Your task to perform on an android device: Search for macbook pro 15 inch on ebay, select the first entry, and add it to the cart. Image 0: 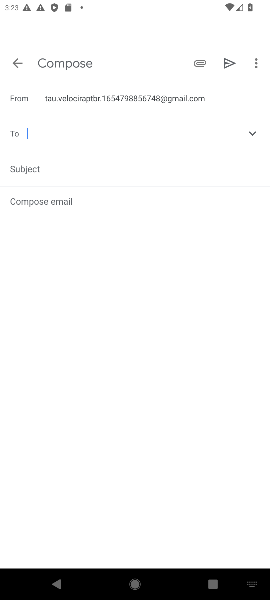
Step 0: press home button
Your task to perform on an android device: Search for macbook pro 15 inch on ebay, select the first entry, and add it to the cart. Image 1: 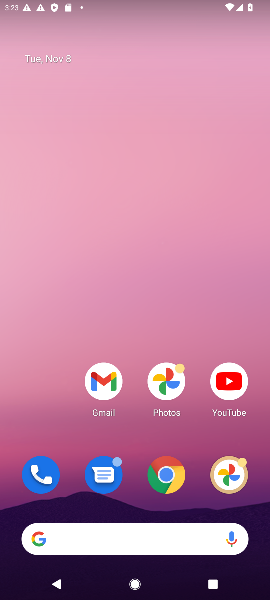
Step 1: drag from (99, 519) to (108, 165)
Your task to perform on an android device: Search for macbook pro 15 inch on ebay, select the first entry, and add it to the cart. Image 2: 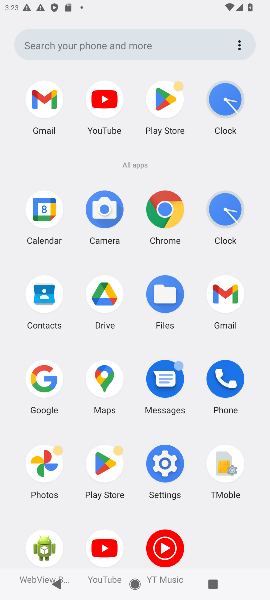
Step 2: click (41, 385)
Your task to perform on an android device: Search for macbook pro 15 inch on ebay, select the first entry, and add it to the cart. Image 3: 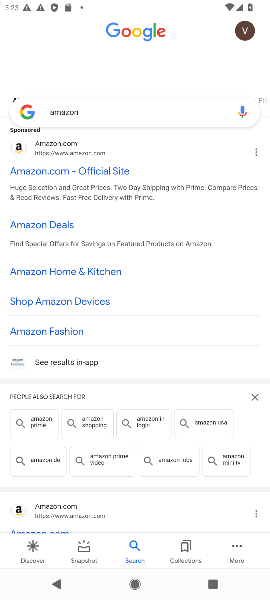
Step 3: click (93, 113)
Your task to perform on an android device: Search for macbook pro 15 inch on ebay, select the first entry, and add it to the cart. Image 4: 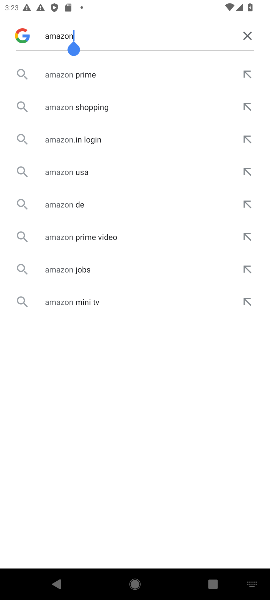
Step 4: click (247, 33)
Your task to perform on an android device: Search for macbook pro 15 inch on ebay, select the first entry, and add it to the cart. Image 5: 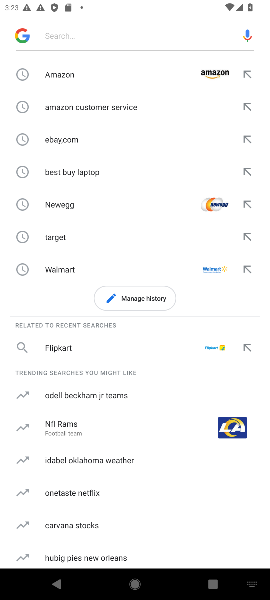
Step 5: click (61, 145)
Your task to perform on an android device: Search for macbook pro 15 inch on ebay, select the first entry, and add it to the cart. Image 6: 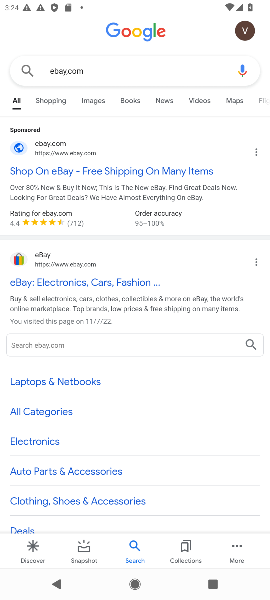
Step 6: click (17, 259)
Your task to perform on an android device: Search for macbook pro 15 inch on ebay, select the first entry, and add it to the cart. Image 7: 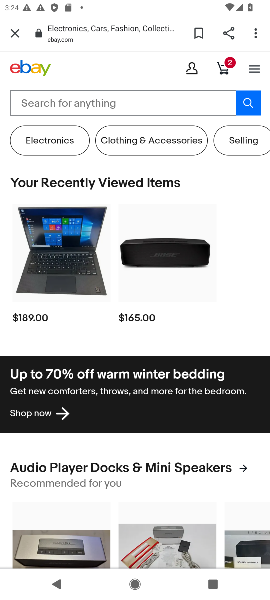
Step 7: click (95, 96)
Your task to perform on an android device: Search for macbook pro 15 inch on ebay, select the first entry, and add it to the cart. Image 8: 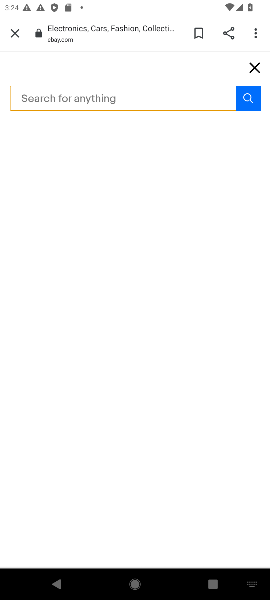
Step 8: type "macbook pro 15 inch "
Your task to perform on an android device: Search for macbook pro 15 inch on ebay, select the first entry, and add it to the cart. Image 9: 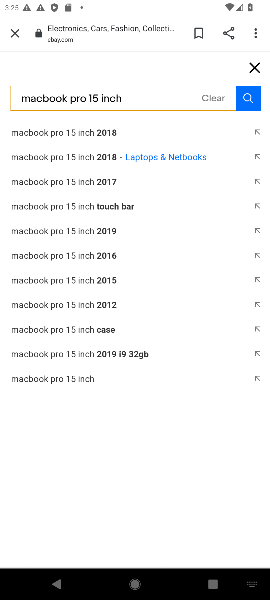
Step 9: click (73, 134)
Your task to perform on an android device: Search for macbook pro 15 inch on ebay, select the first entry, and add it to the cart. Image 10: 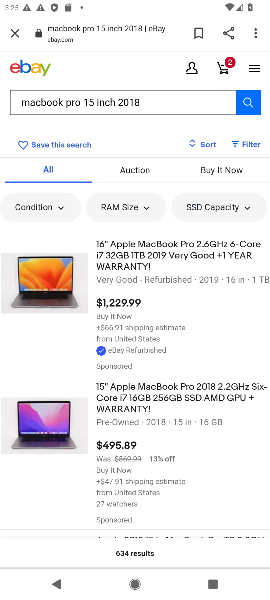
Step 10: click (143, 251)
Your task to perform on an android device: Search for macbook pro 15 inch on ebay, select the first entry, and add it to the cart. Image 11: 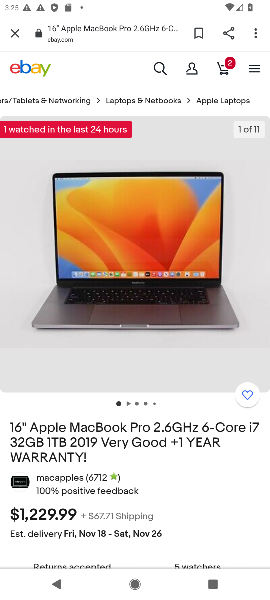
Step 11: drag from (193, 507) to (168, 233)
Your task to perform on an android device: Search for macbook pro 15 inch on ebay, select the first entry, and add it to the cart. Image 12: 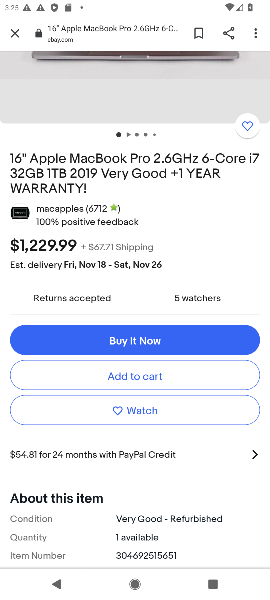
Step 12: click (140, 379)
Your task to perform on an android device: Search for macbook pro 15 inch on ebay, select the first entry, and add it to the cart. Image 13: 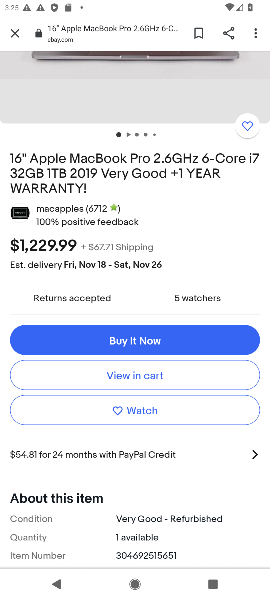
Step 13: click (140, 371)
Your task to perform on an android device: Search for macbook pro 15 inch on ebay, select the first entry, and add it to the cart. Image 14: 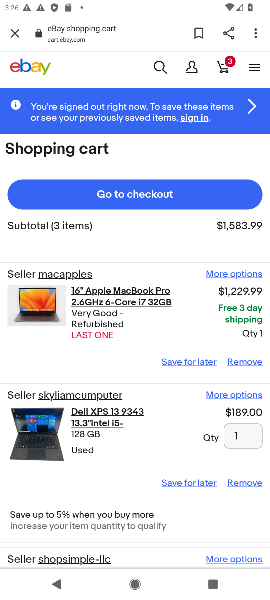
Step 14: click (155, 295)
Your task to perform on an android device: Search for macbook pro 15 inch on ebay, select the first entry, and add it to the cart. Image 15: 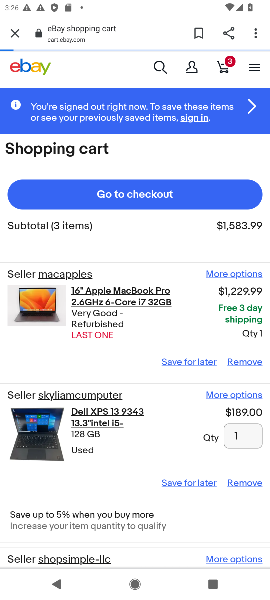
Step 15: click (211, 301)
Your task to perform on an android device: Search for macbook pro 15 inch on ebay, select the first entry, and add it to the cart. Image 16: 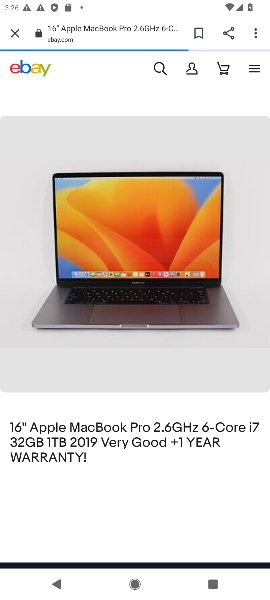
Step 16: drag from (160, 477) to (174, 181)
Your task to perform on an android device: Search for macbook pro 15 inch on ebay, select the first entry, and add it to the cart. Image 17: 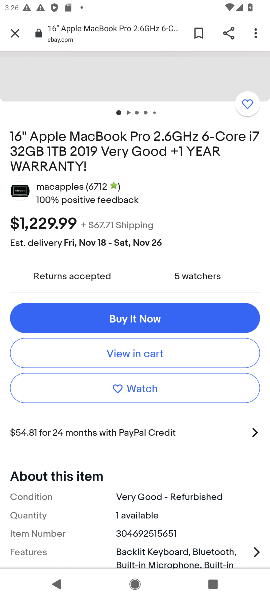
Step 17: click (155, 350)
Your task to perform on an android device: Search for macbook pro 15 inch on ebay, select the first entry, and add it to the cart. Image 18: 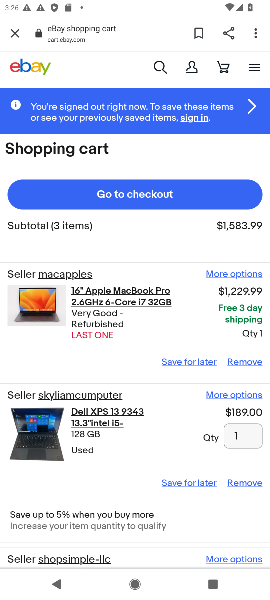
Step 18: task complete